Your task to perform on an android device: Open Google Image 0: 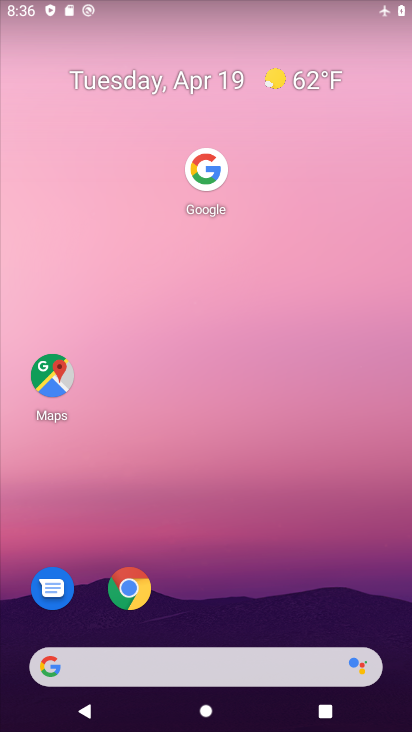
Step 0: click (204, 663)
Your task to perform on an android device: Open Google Image 1: 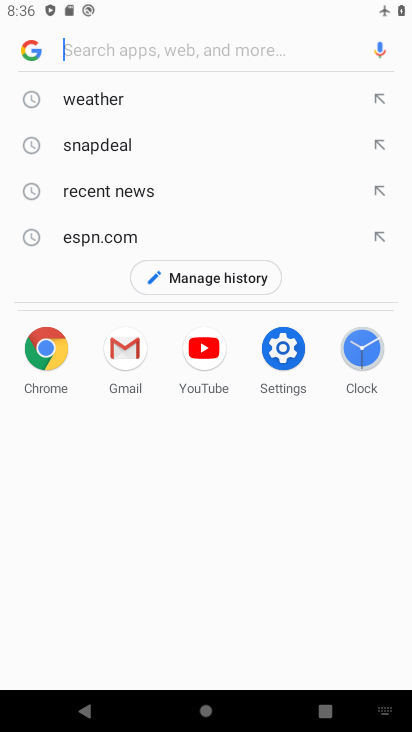
Step 1: task complete